Your task to perform on an android device: see creations saved in the google photos Image 0: 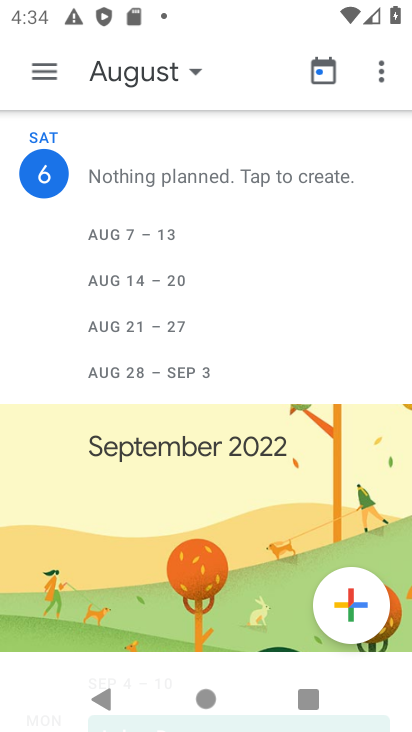
Step 0: press home button
Your task to perform on an android device: see creations saved in the google photos Image 1: 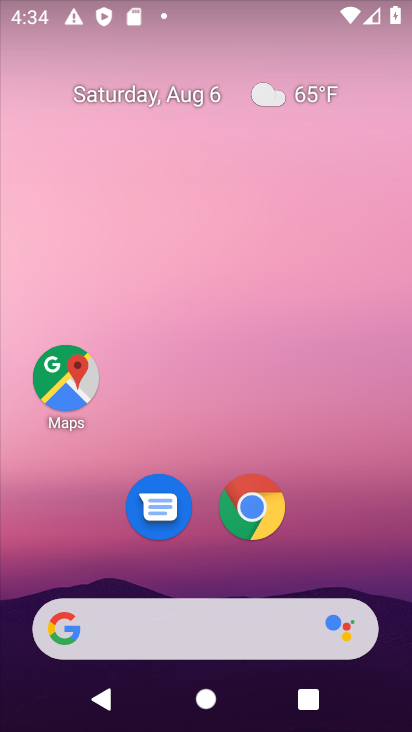
Step 1: drag from (350, 384) to (344, 158)
Your task to perform on an android device: see creations saved in the google photos Image 2: 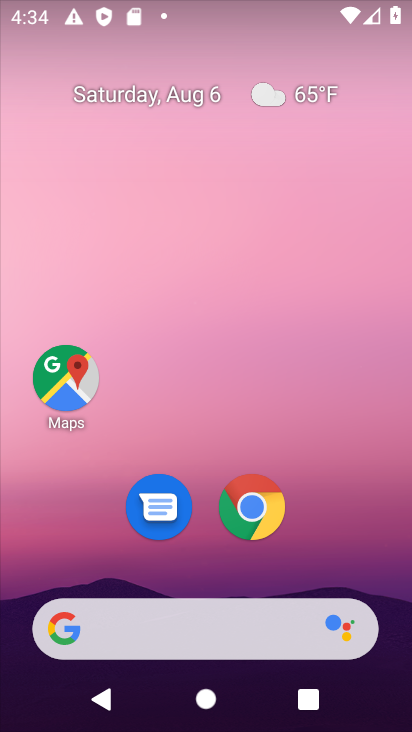
Step 2: drag from (352, 481) to (352, 179)
Your task to perform on an android device: see creations saved in the google photos Image 3: 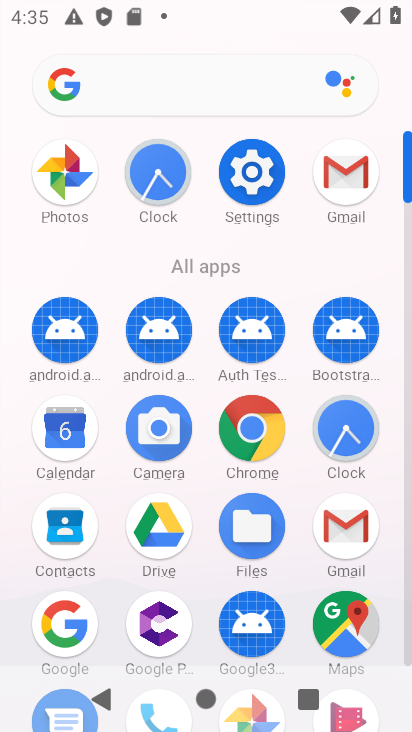
Step 3: click (66, 147)
Your task to perform on an android device: see creations saved in the google photos Image 4: 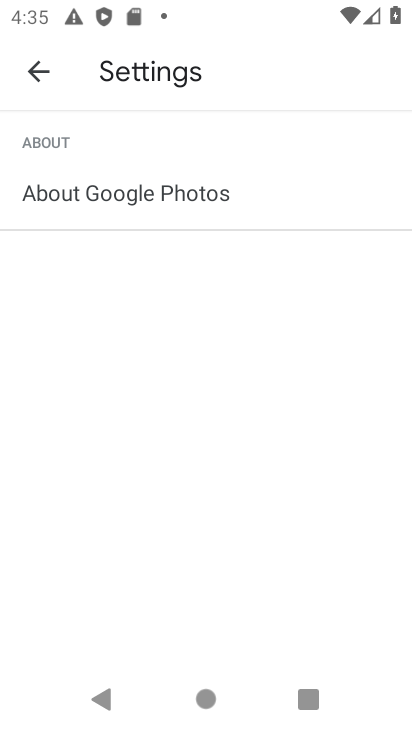
Step 4: click (31, 69)
Your task to perform on an android device: see creations saved in the google photos Image 5: 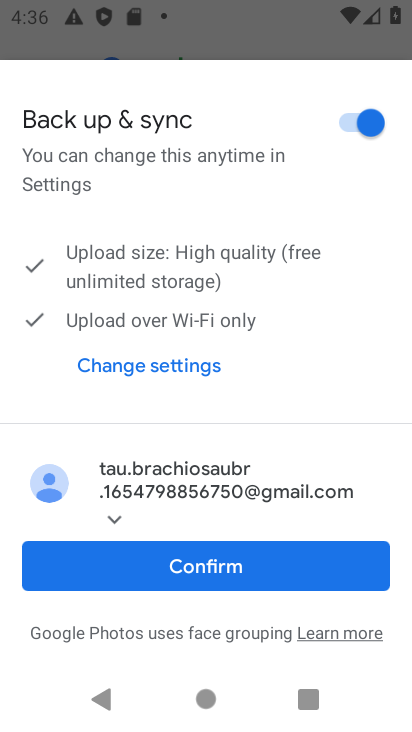
Step 5: click (214, 556)
Your task to perform on an android device: see creations saved in the google photos Image 6: 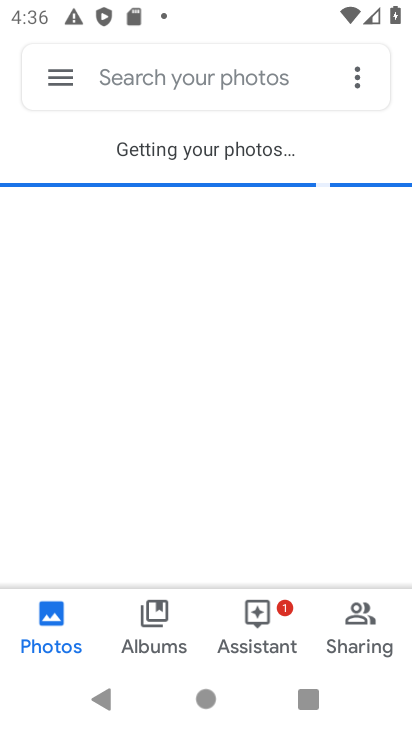
Step 6: task complete